Your task to perform on an android device: Set the phone to "Do not disturb". Image 0: 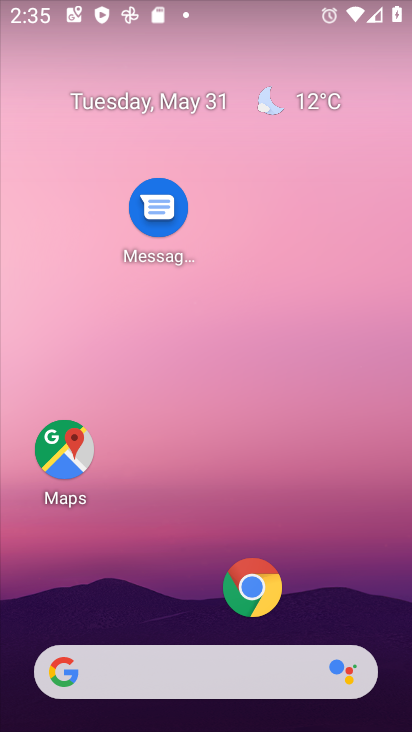
Step 0: drag from (208, 531) to (315, 38)
Your task to perform on an android device: Set the phone to "Do not disturb". Image 1: 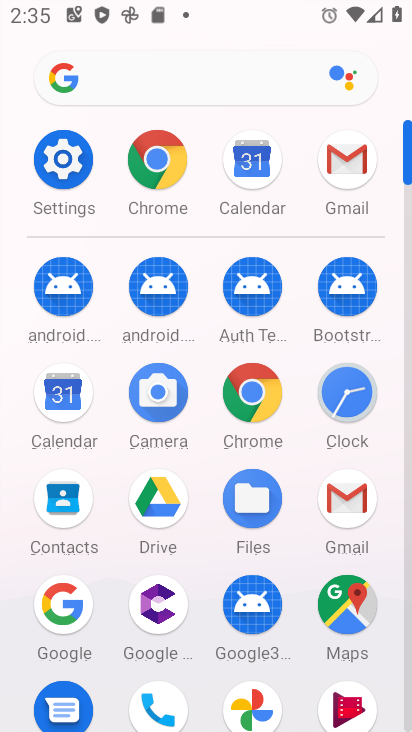
Step 1: click (50, 179)
Your task to perform on an android device: Set the phone to "Do not disturb". Image 2: 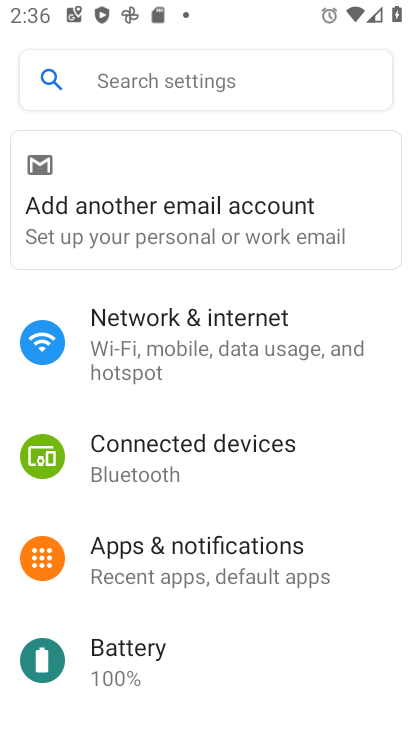
Step 2: drag from (215, 623) to (297, 196)
Your task to perform on an android device: Set the phone to "Do not disturb". Image 3: 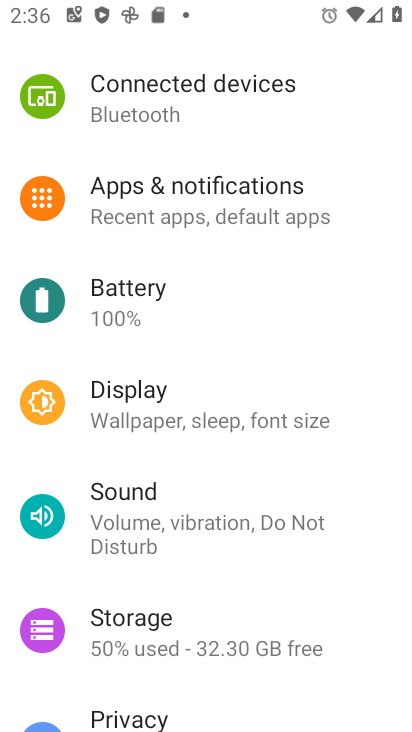
Step 3: drag from (234, 195) to (227, 384)
Your task to perform on an android device: Set the phone to "Do not disturb". Image 4: 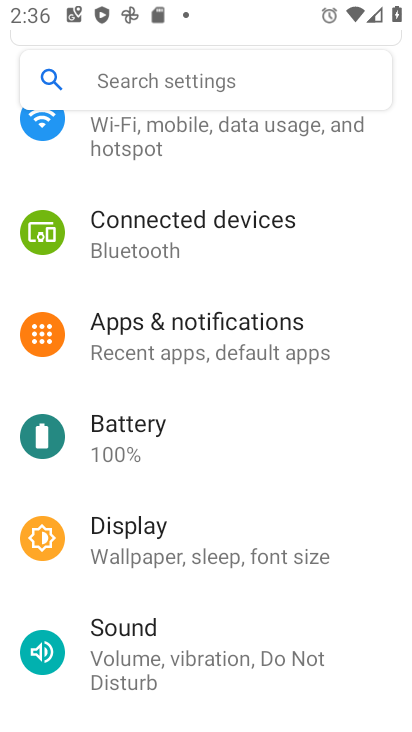
Step 4: click (175, 330)
Your task to perform on an android device: Set the phone to "Do not disturb". Image 5: 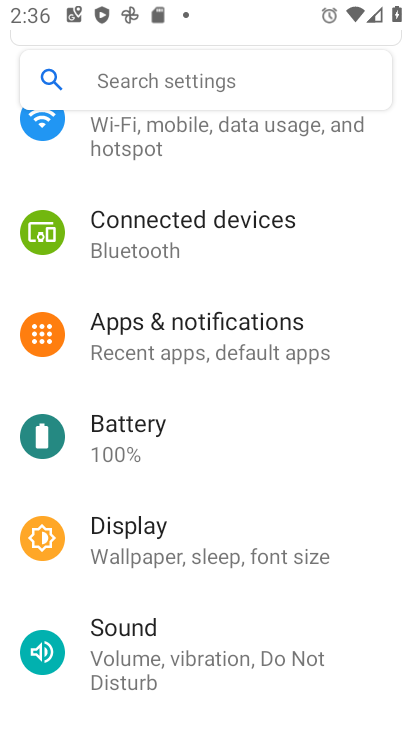
Step 5: click (175, 330)
Your task to perform on an android device: Set the phone to "Do not disturb". Image 6: 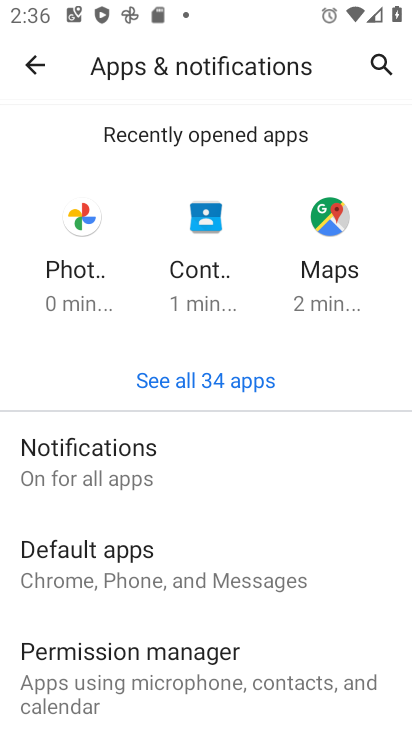
Step 6: click (138, 433)
Your task to perform on an android device: Set the phone to "Do not disturb". Image 7: 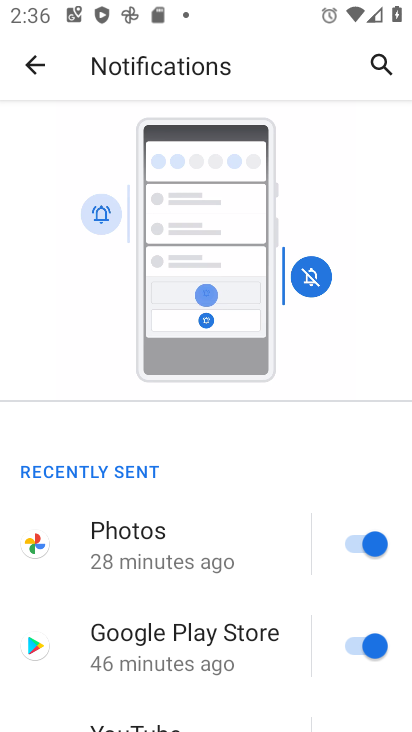
Step 7: drag from (268, 657) to (395, 288)
Your task to perform on an android device: Set the phone to "Do not disturb". Image 8: 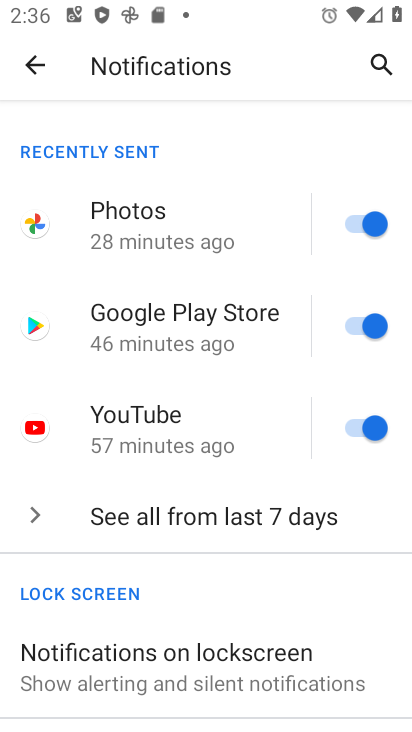
Step 8: drag from (172, 658) to (332, 356)
Your task to perform on an android device: Set the phone to "Do not disturb". Image 9: 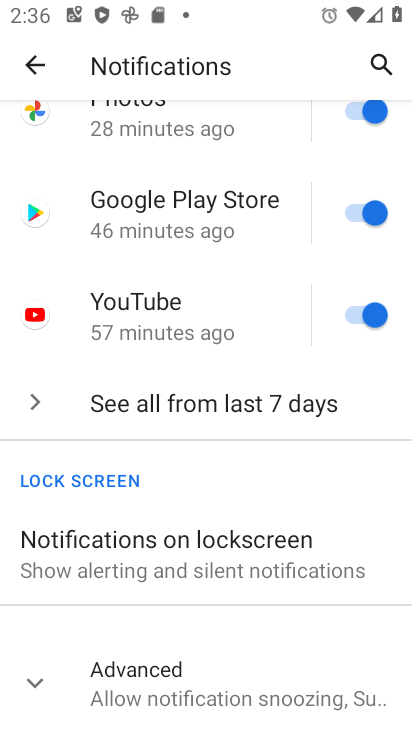
Step 9: drag from (195, 575) to (313, 450)
Your task to perform on an android device: Set the phone to "Do not disturb". Image 10: 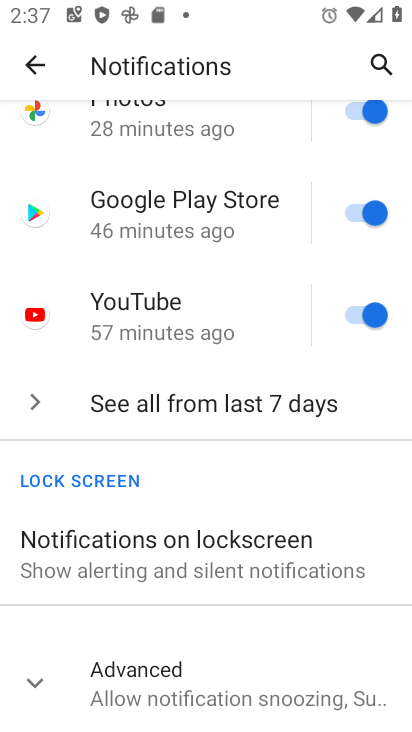
Step 10: click (143, 698)
Your task to perform on an android device: Set the phone to "Do not disturb". Image 11: 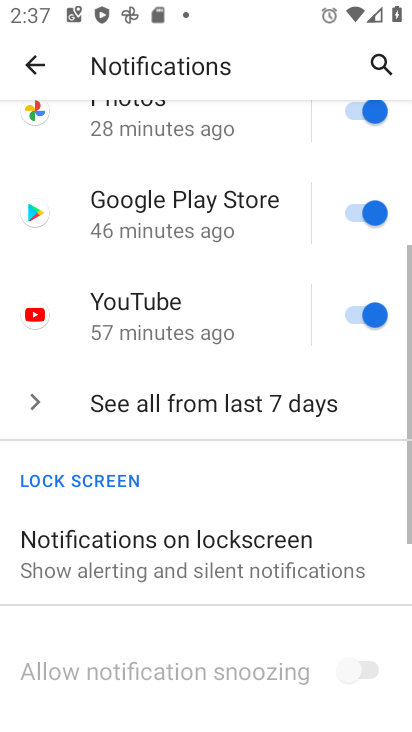
Step 11: drag from (149, 689) to (411, 77)
Your task to perform on an android device: Set the phone to "Do not disturb". Image 12: 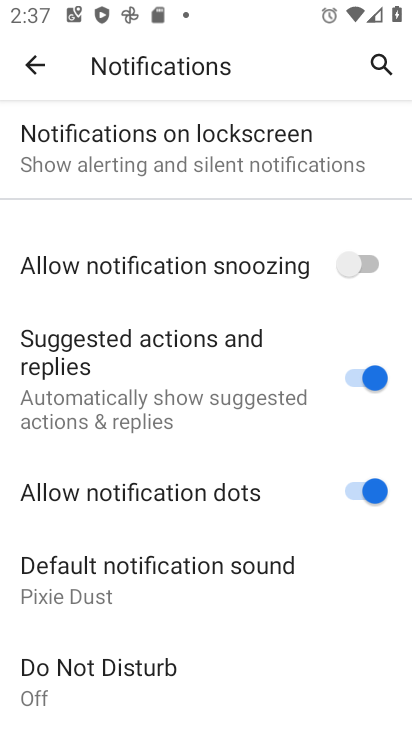
Step 12: drag from (208, 637) to (336, 129)
Your task to perform on an android device: Set the phone to "Do not disturb". Image 13: 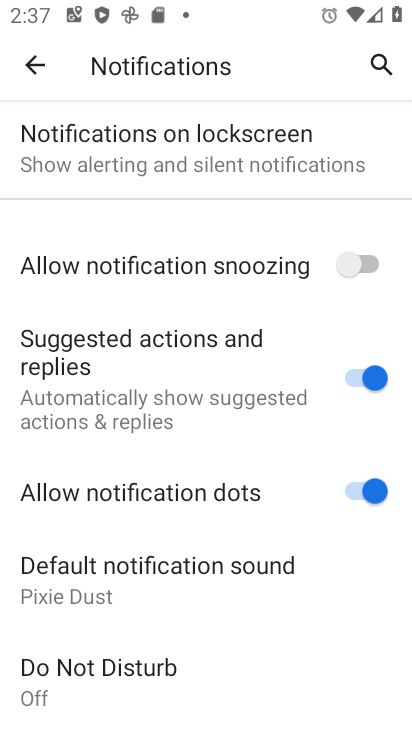
Step 13: click (90, 669)
Your task to perform on an android device: Set the phone to "Do not disturb". Image 14: 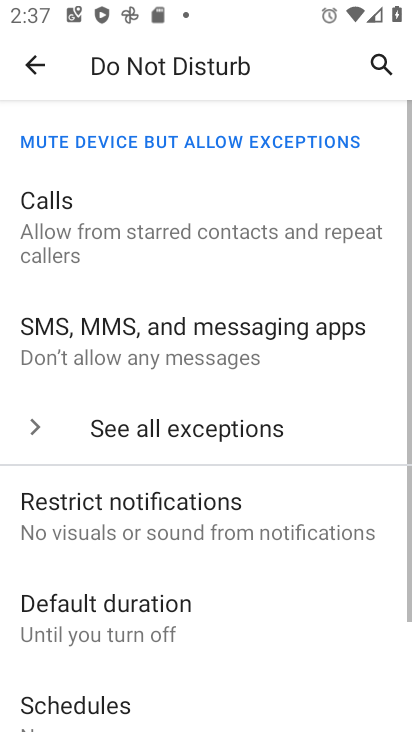
Step 14: drag from (138, 633) to (367, 136)
Your task to perform on an android device: Set the phone to "Do not disturb". Image 15: 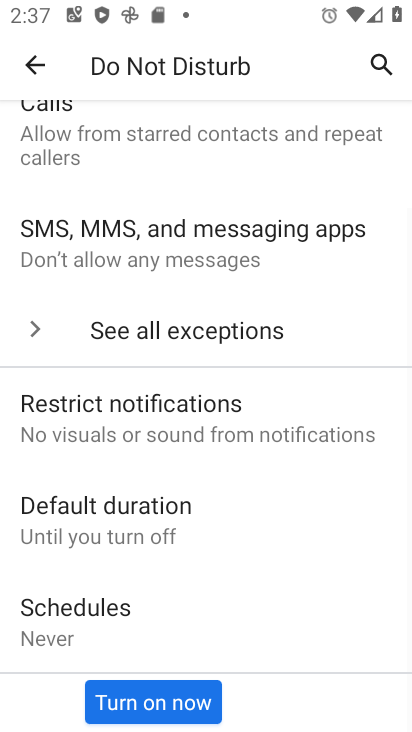
Step 15: drag from (190, 623) to (320, 206)
Your task to perform on an android device: Set the phone to "Do not disturb". Image 16: 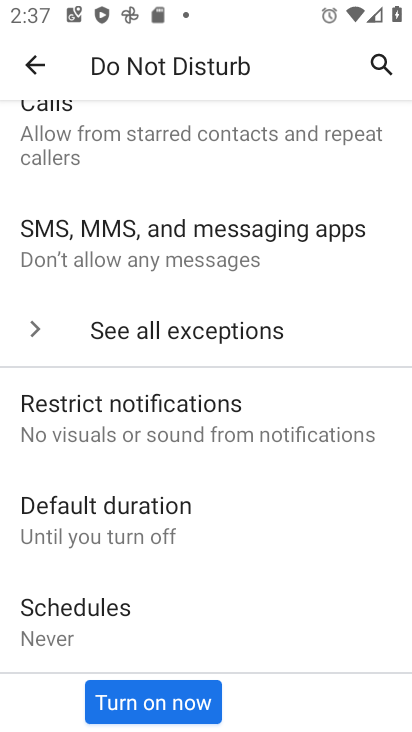
Step 16: click (160, 709)
Your task to perform on an android device: Set the phone to "Do not disturb". Image 17: 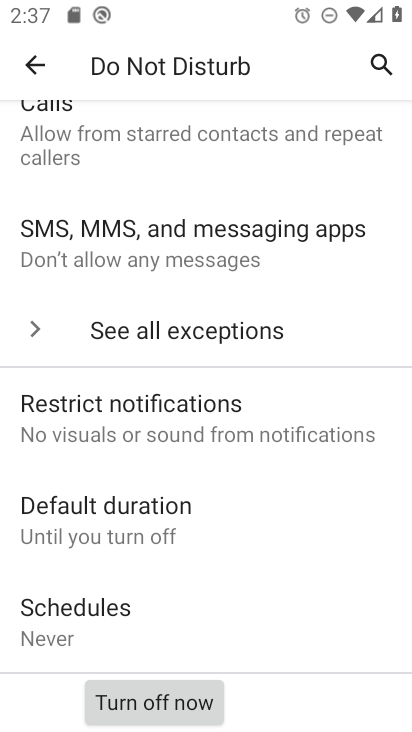
Step 17: task complete